Your task to perform on an android device: read, delete, or share a saved page in the chrome app Image 0: 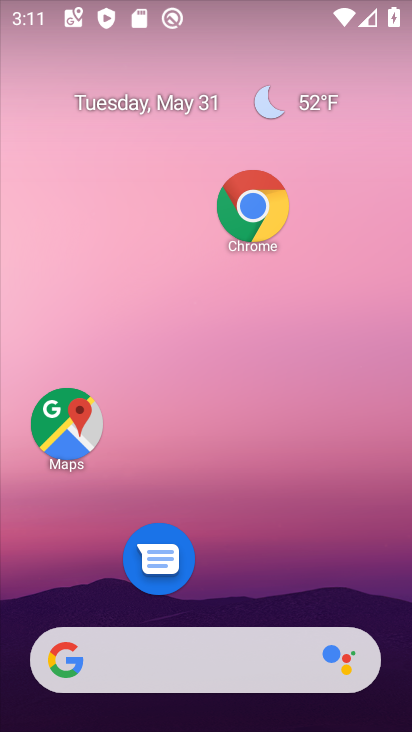
Step 0: click (258, 218)
Your task to perform on an android device: read, delete, or share a saved page in the chrome app Image 1: 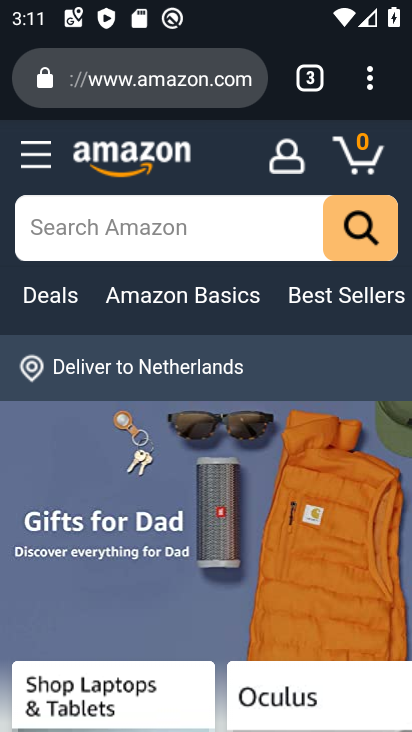
Step 1: drag from (374, 73) to (238, 509)
Your task to perform on an android device: read, delete, or share a saved page in the chrome app Image 2: 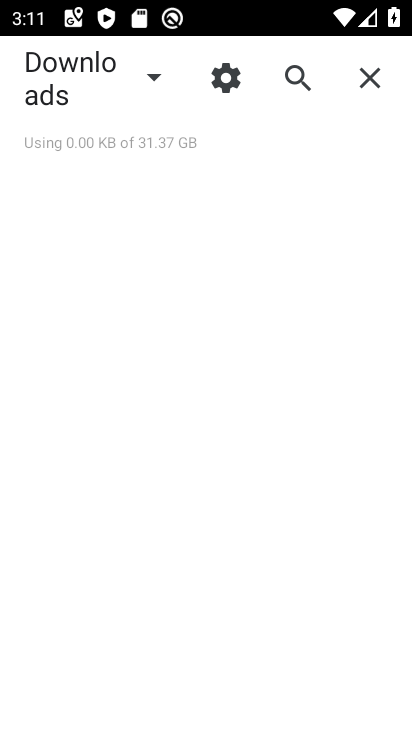
Step 2: click (135, 77)
Your task to perform on an android device: read, delete, or share a saved page in the chrome app Image 3: 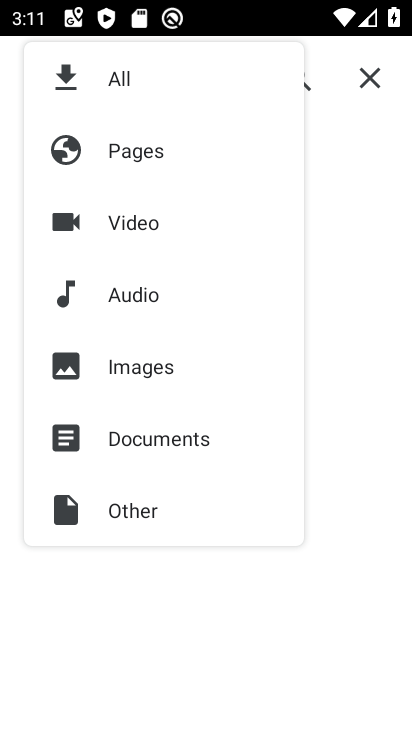
Step 3: click (130, 156)
Your task to perform on an android device: read, delete, or share a saved page in the chrome app Image 4: 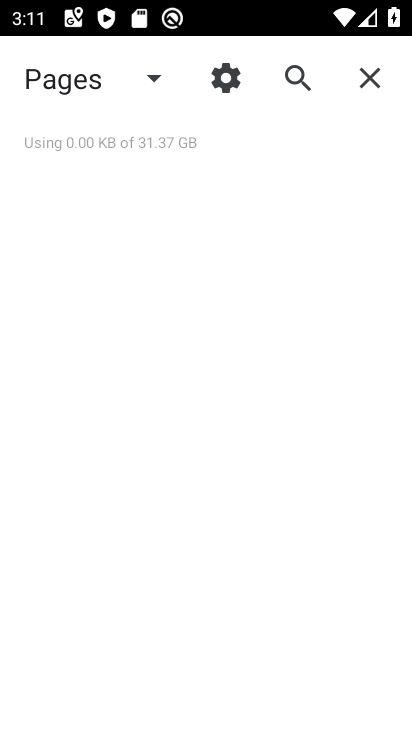
Step 4: task complete